Your task to perform on an android device: toggle translation in the chrome app Image 0: 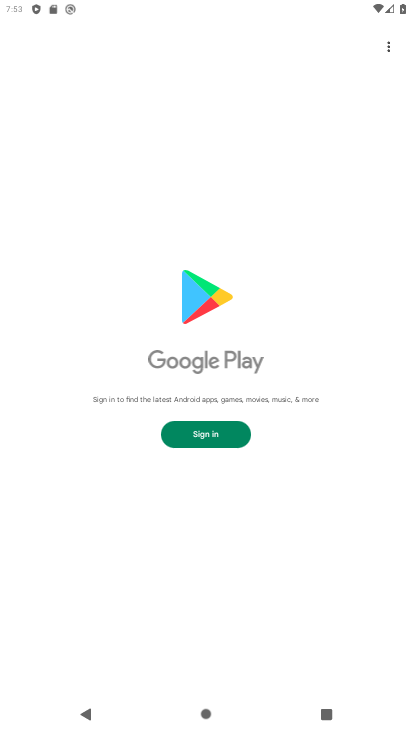
Step 0: press home button
Your task to perform on an android device: toggle translation in the chrome app Image 1: 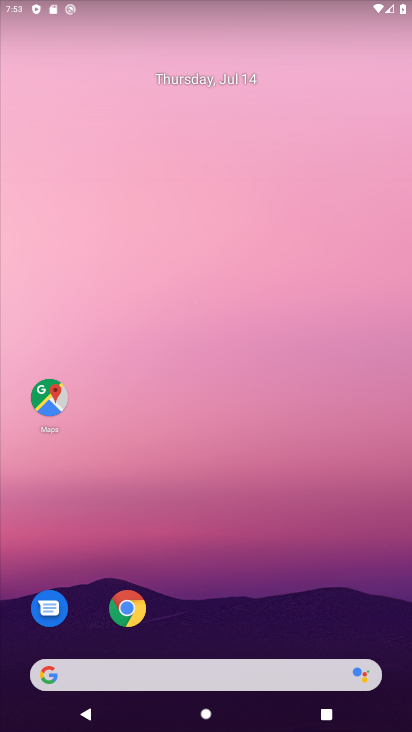
Step 1: click (128, 608)
Your task to perform on an android device: toggle translation in the chrome app Image 2: 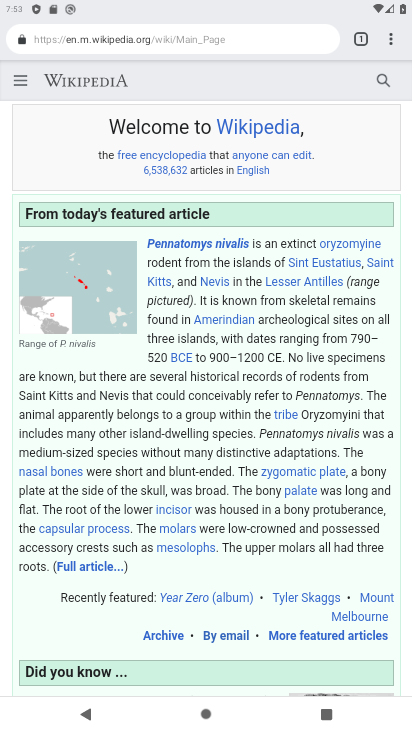
Step 2: click (393, 40)
Your task to perform on an android device: toggle translation in the chrome app Image 3: 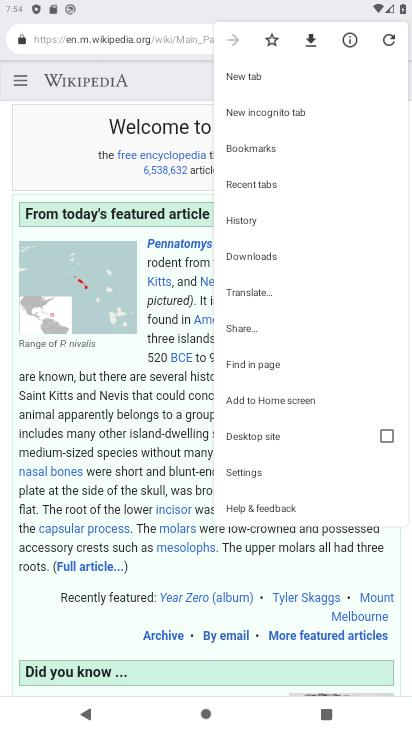
Step 3: click (247, 468)
Your task to perform on an android device: toggle translation in the chrome app Image 4: 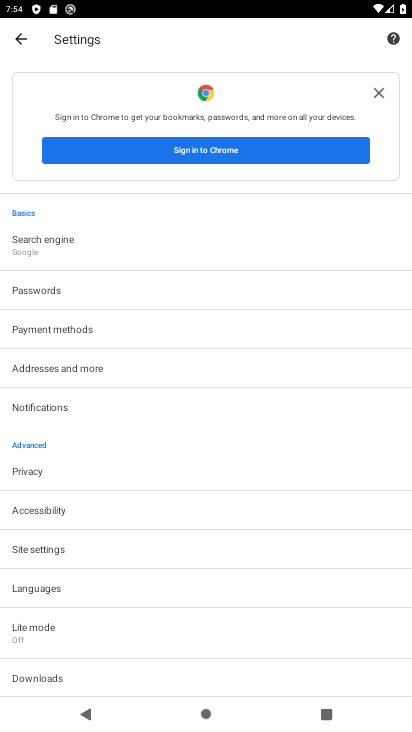
Step 4: click (37, 585)
Your task to perform on an android device: toggle translation in the chrome app Image 5: 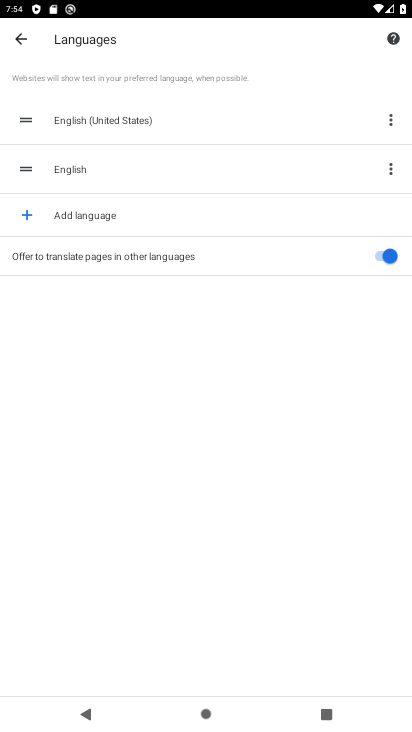
Step 5: click (387, 256)
Your task to perform on an android device: toggle translation in the chrome app Image 6: 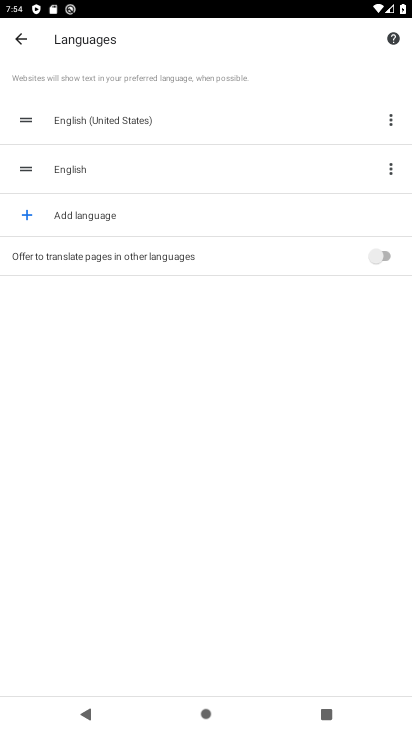
Step 6: task complete